Your task to perform on an android device: Open the map Image 0: 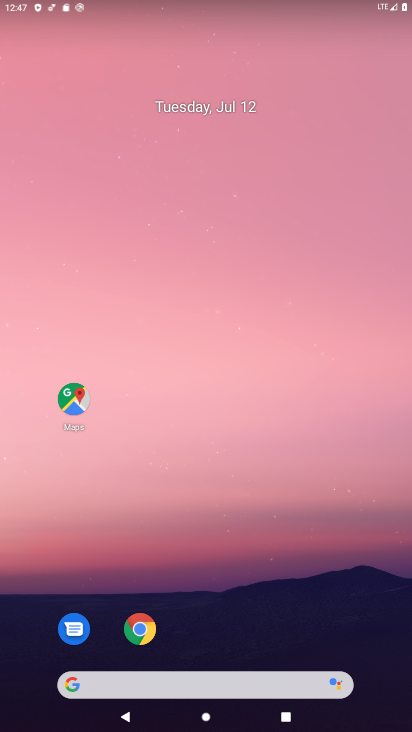
Step 0: drag from (271, 683) to (333, 91)
Your task to perform on an android device: Open the map Image 1: 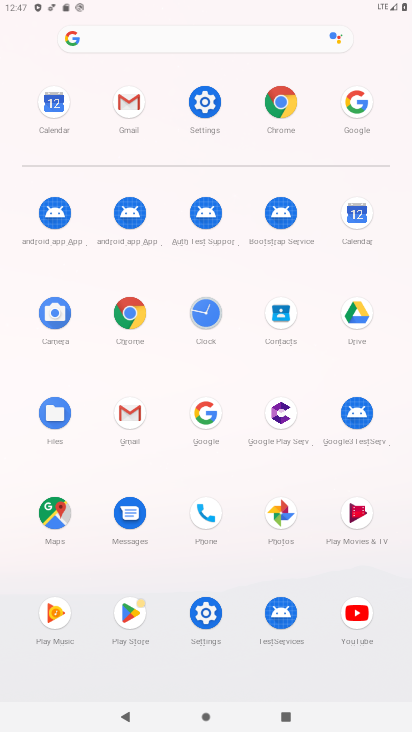
Step 1: click (62, 518)
Your task to perform on an android device: Open the map Image 2: 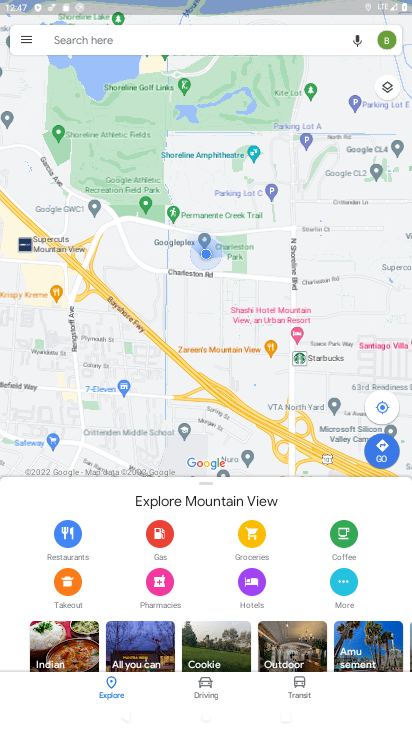
Step 2: task complete